Your task to perform on an android device: uninstall "Adobe Acrobat Reader: Edit PDF" Image 0: 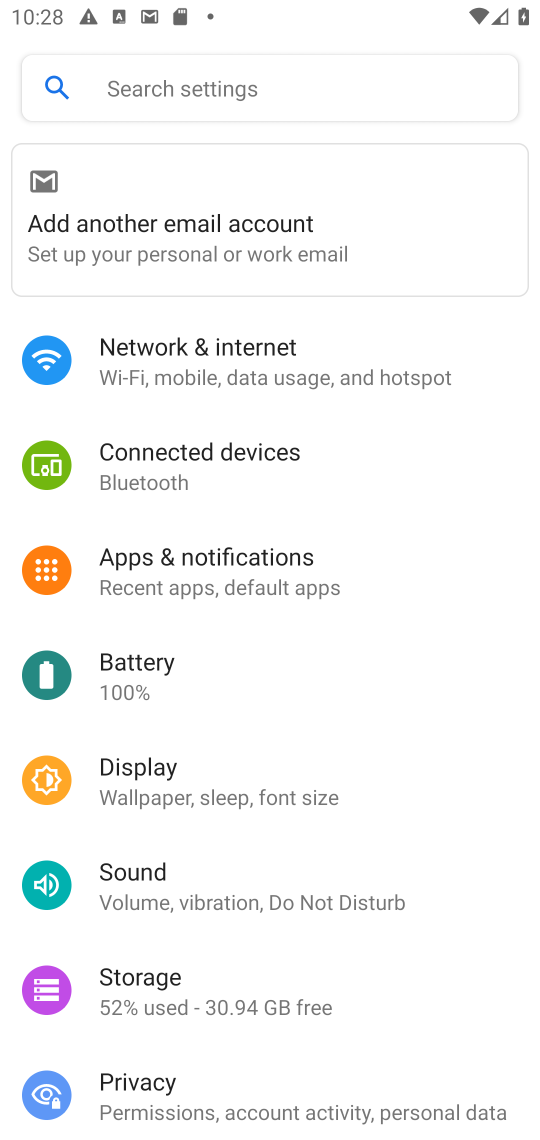
Step 0: press home button
Your task to perform on an android device: uninstall "Adobe Acrobat Reader: Edit PDF" Image 1: 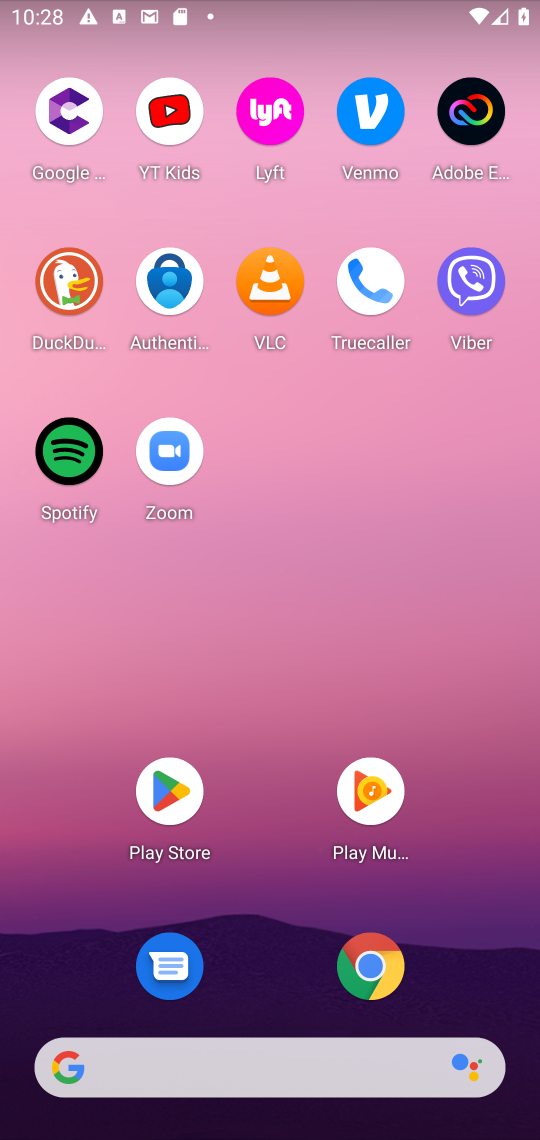
Step 1: click (181, 786)
Your task to perform on an android device: uninstall "Adobe Acrobat Reader: Edit PDF" Image 2: 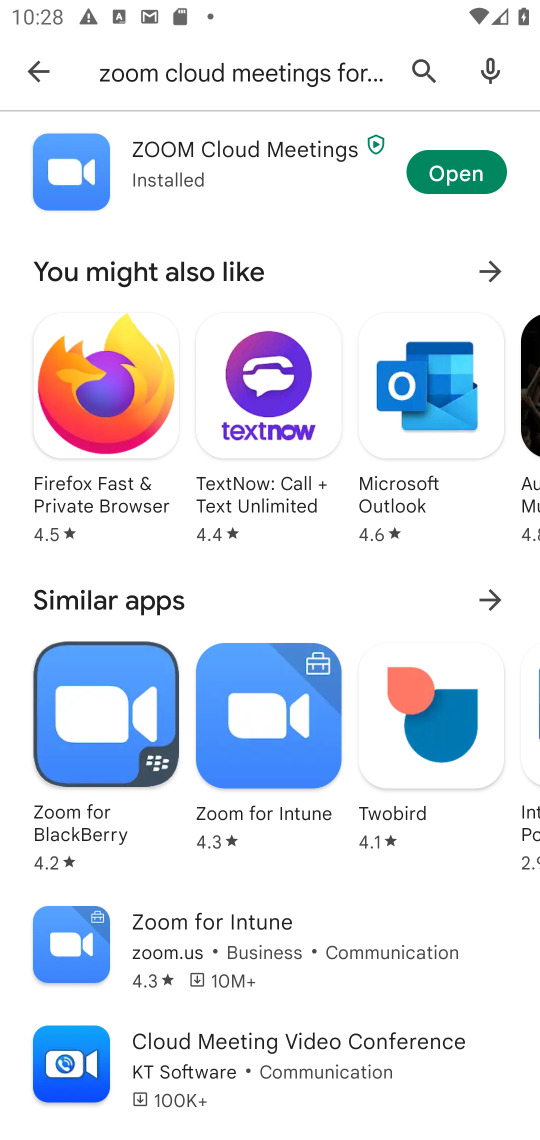
Step 2: click (423, 57)
Your task to perform on an android device: uninstall "Adobe Acrobat Reader: Edit PDF" Image 3: 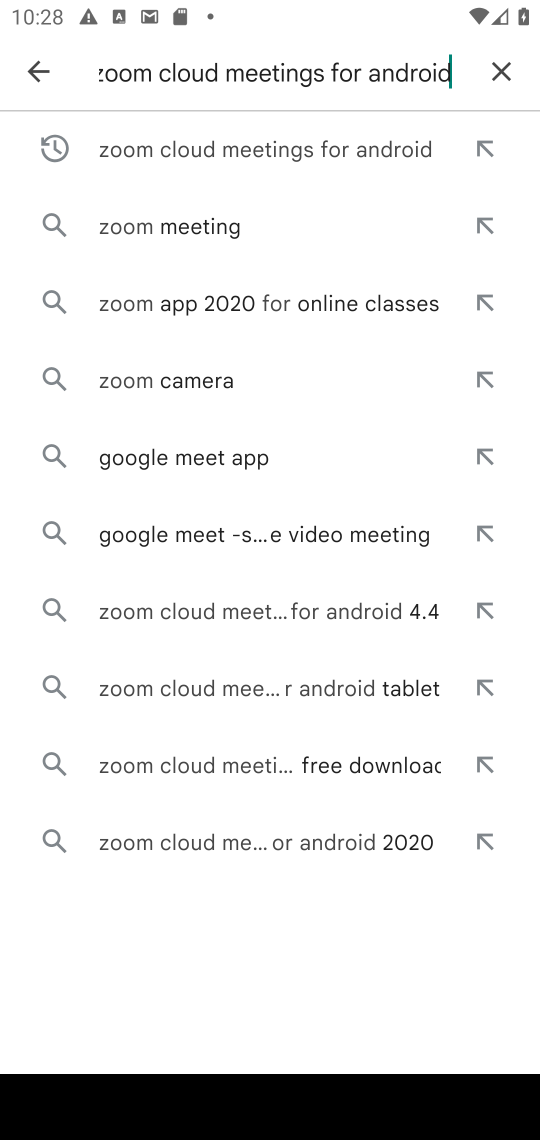
Step 3: click (505, 58)
Your task to perform on an android device: uninstall "Adobe Acrobat Reader: Edit PDF" Image 4: 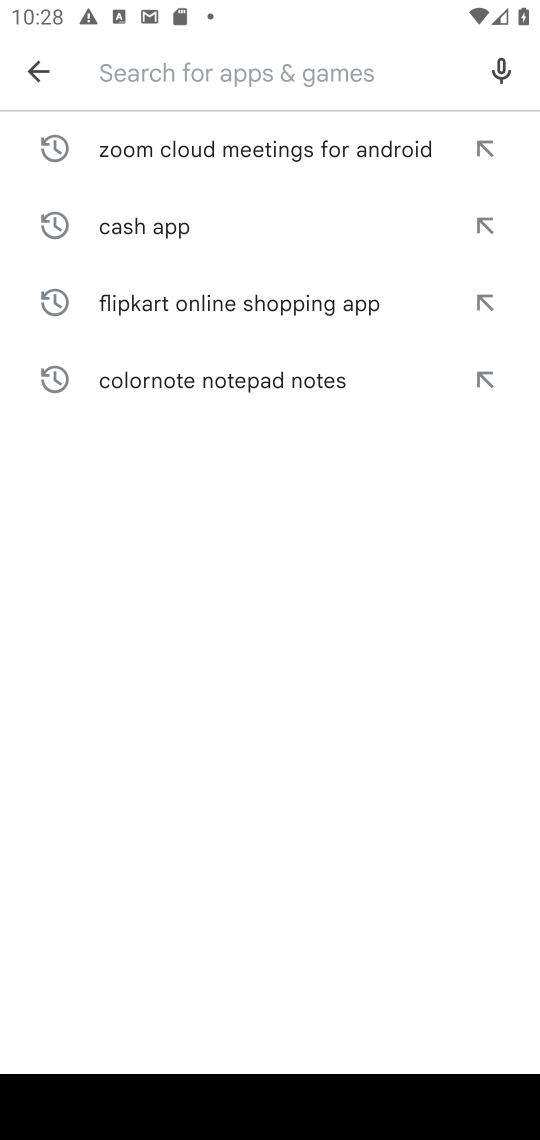
Step 4: type "Adobe Acrobat Reader: Edit PDF"
Your task to perform on an android device: uninstall "Adobe Acrobat Reader: Edit PDF" Image 5: 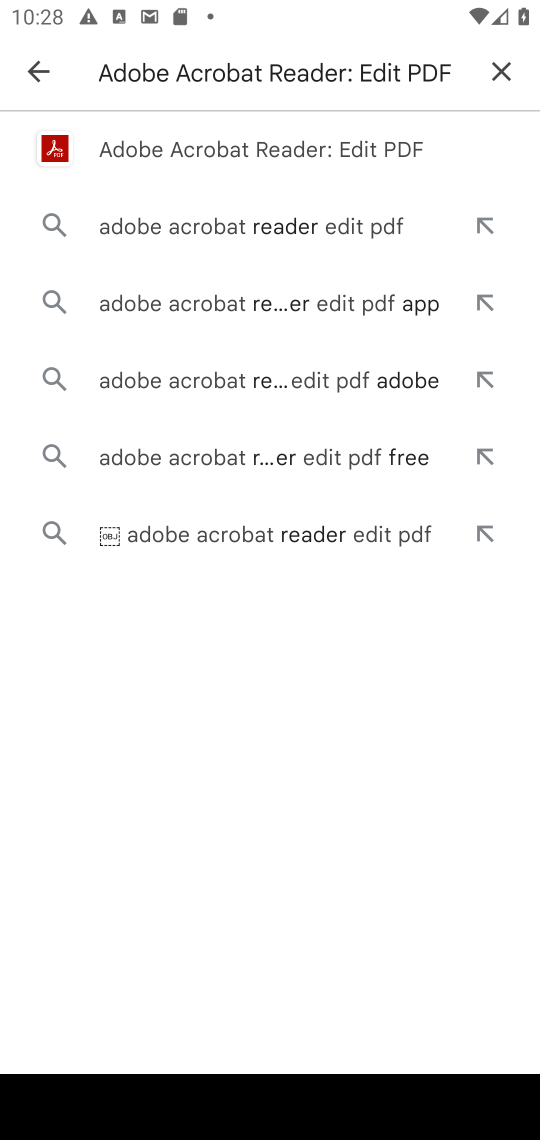
Step 5: click (183, 139)
Your task to perform on an android device: uninstall "Adobe Acrobat Reader: Edit PDF" Image 6: 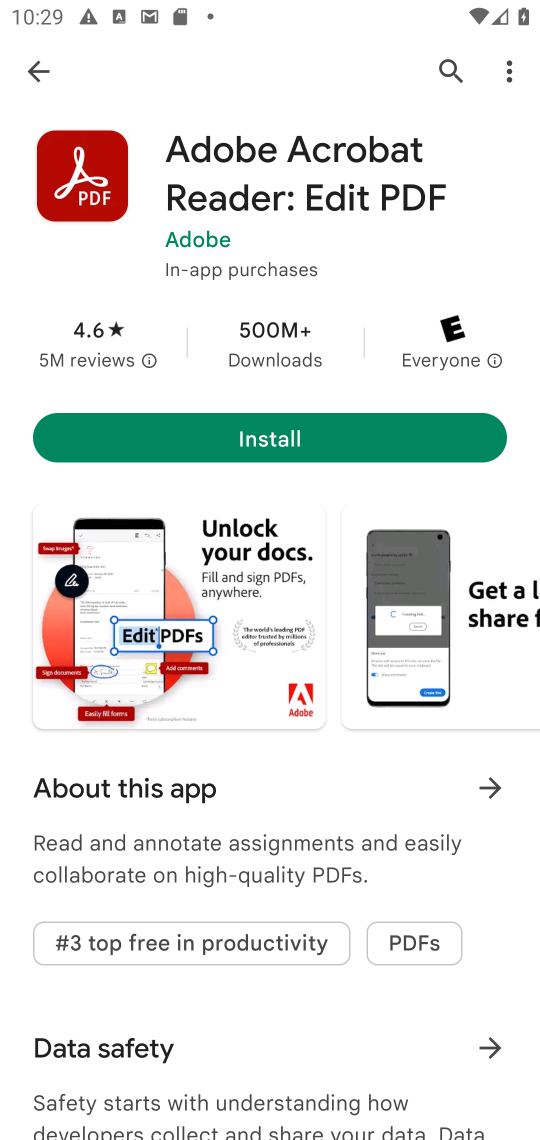
Step 6: task complete